Your task to perform on an android device: Open Amazon Image 0: 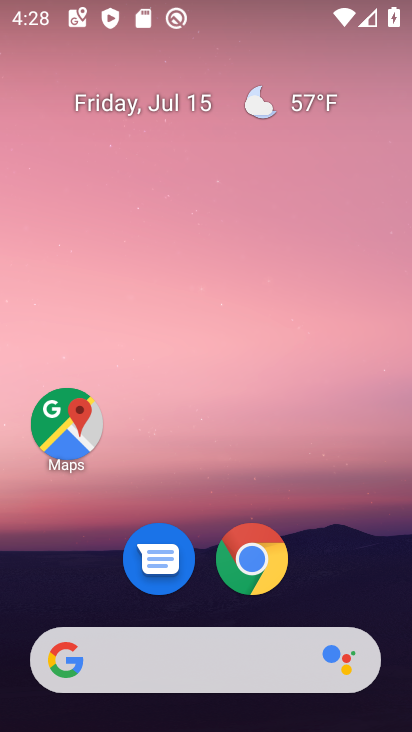
Step 0: click (259, 567)
Your task to perform on an android device: Open Amazon Image 1: 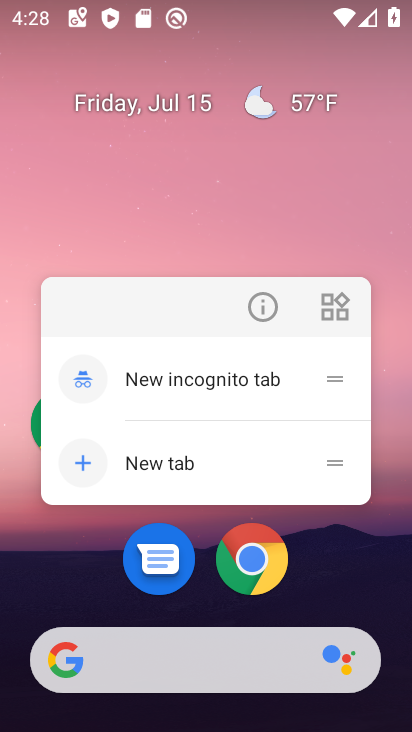
Step 1: click (259, 554)
Your task to perform on an android device: Open Amazon Image 2: 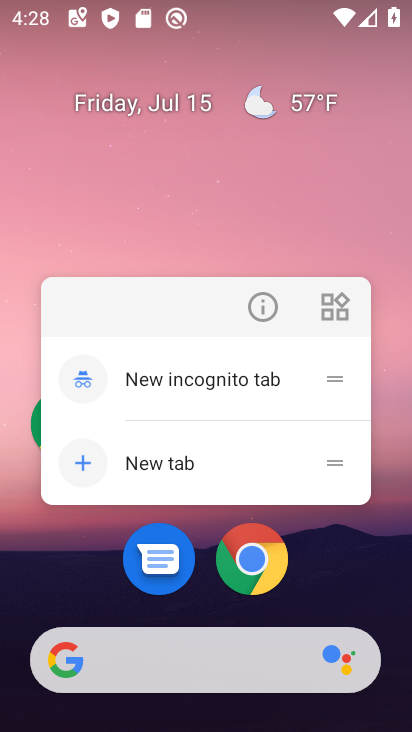
Step 2: click (261, 554)
Your task to perform on an android device: Open Amazon Image 3: 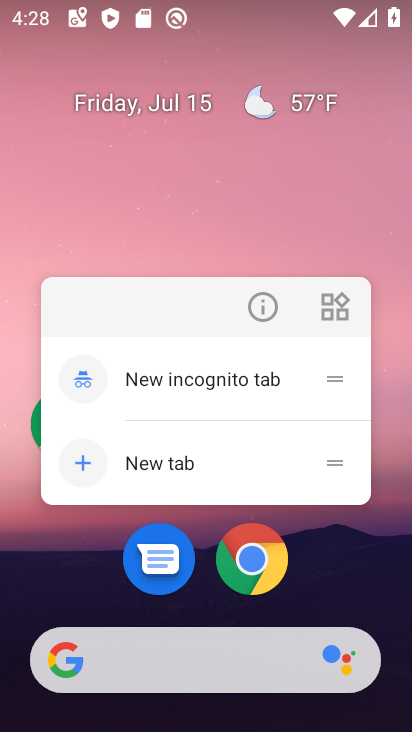
Step 3: click (253, 556)
Your task to perform on an android device: Open Amazon Image 4: 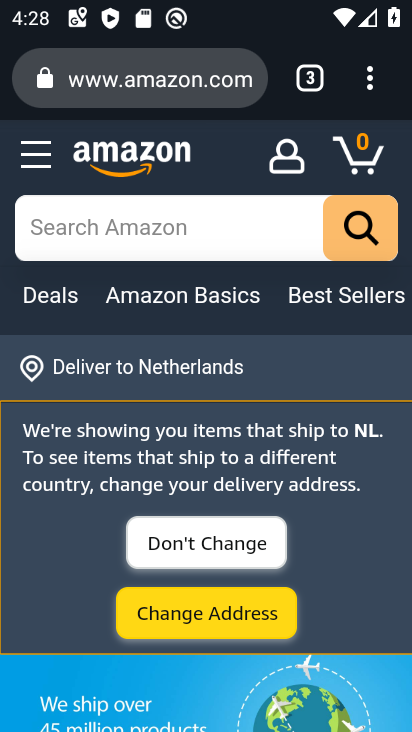
Step 4: task complete